Your task to perform on an android device: find photos in the google photos app Image 0: 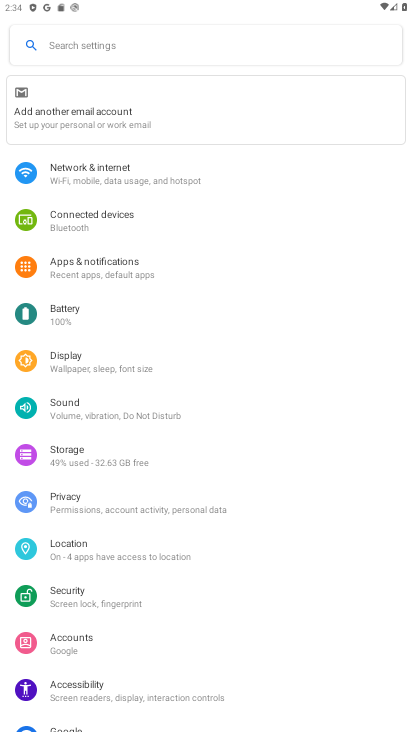
Step 0: press home button
Your task to perform on an android device: find photos in the google photos app Image 1: 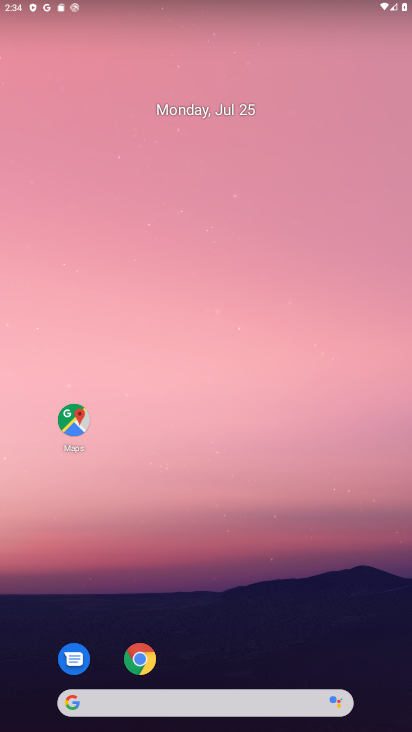
Step 1: drag from (204, 678) to (227, 86)
Your task to perform on an android device: find photos in the google photos app Image 2: 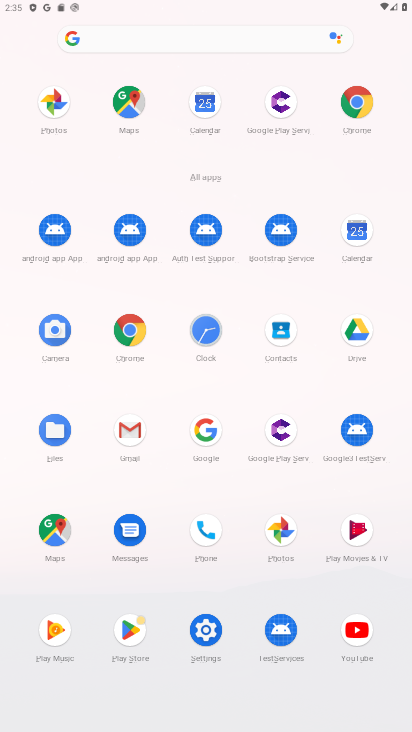
Step 2: click (278, 536)
Your task to perform on an android device: find photos in the google photos app Image 3: 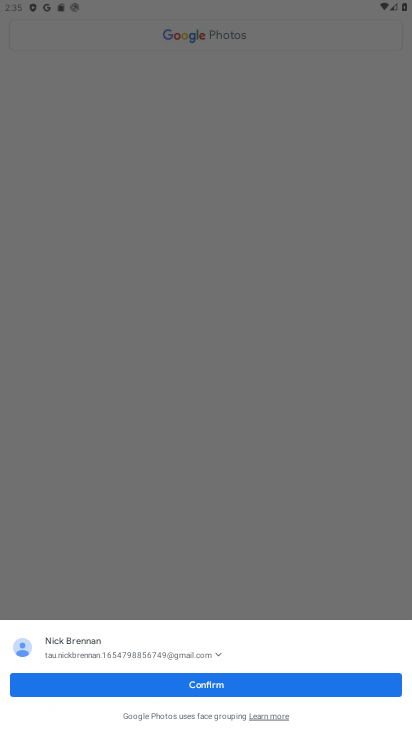
Step 3: drag from (228, 227) to (210, 597)
Your task to perform on an android device: find photos in the google photos app Image 4: 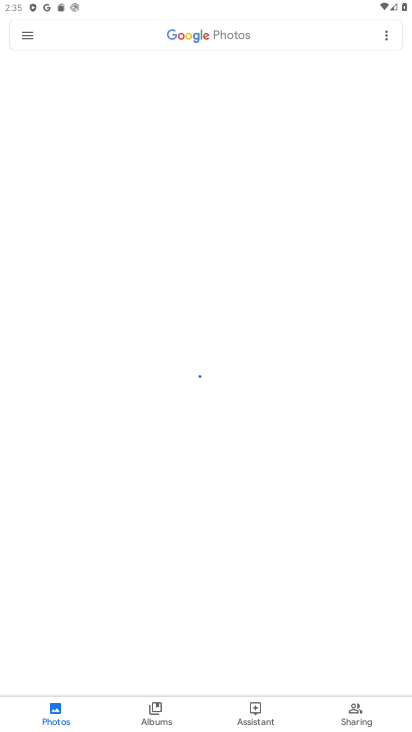
Step 4: click (203, 679)
Your task to perform on an android device: find photos in the google photos app Image 5: 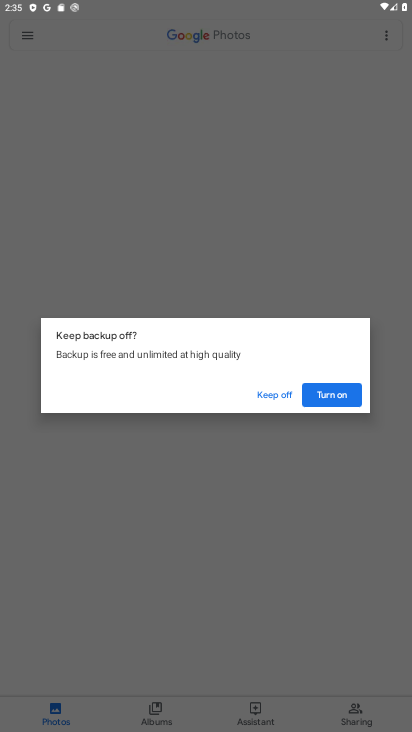
Step 5: click (259, 392)
Your task to perform on an android device: find photos in the google photos app Image 6: 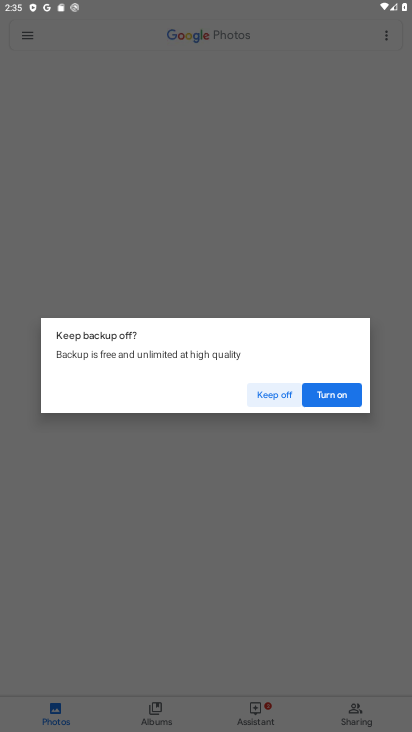
Step 6: task complete